Your task to perform on an android device: toggle javascript in the chrome app Image 0: 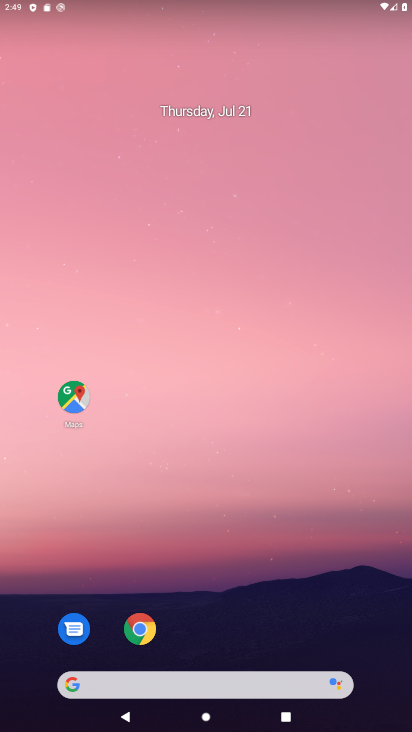
Step 0: drag from (251, 632) to (405, 283)
Your task to perform on an android device: toggle javascript in the chrome app Image 1: 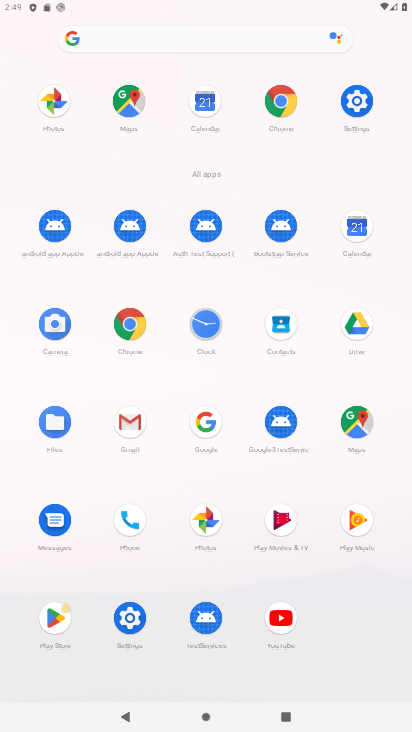
Step 1: click (134, 324)
Your task to perform on an android device: toggle javascript in the chrome app Image 2: 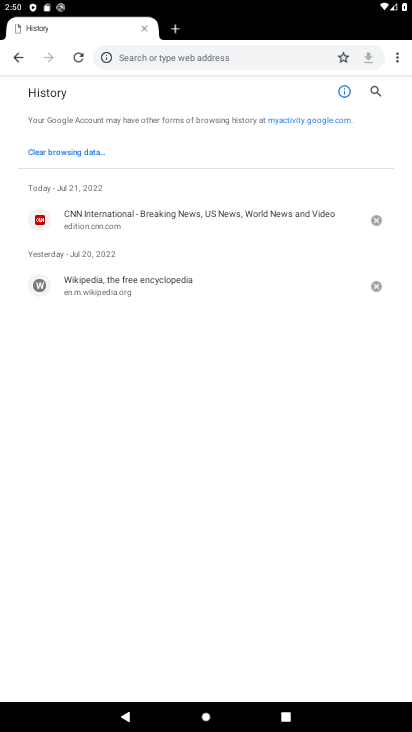
Step 2: click (395, 58)
Your task to perform on an android device: toggle javascript in the chrome app Image 3: 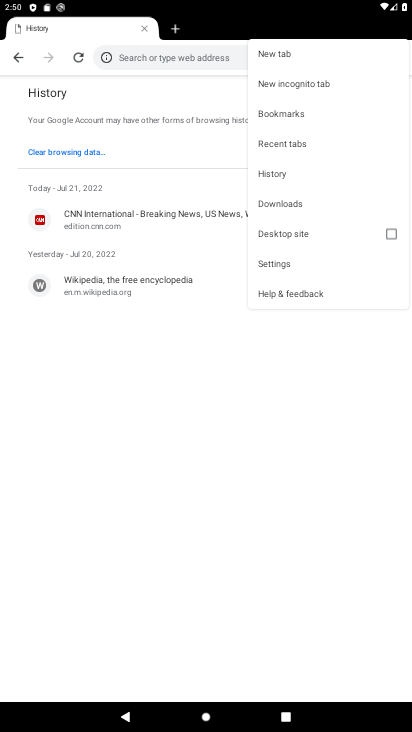
Step 3: click (277, 261)
Your task to perform on an android device: toggle javascript in the chrome app Image 4: 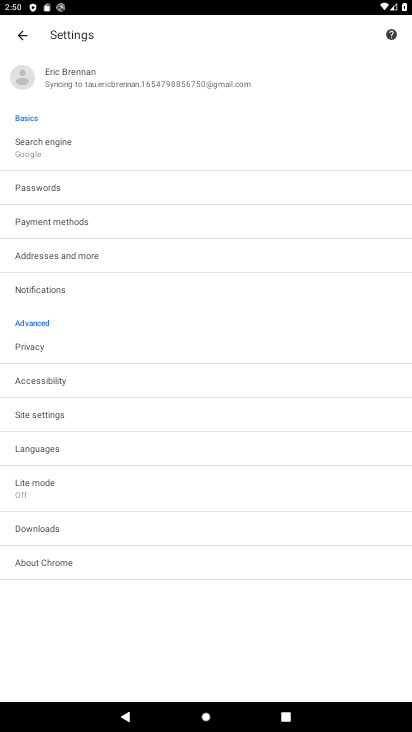
Step 4: click (61, 418)
Your task to perform on an android device: toggle javascript in the chrome app Image 5: 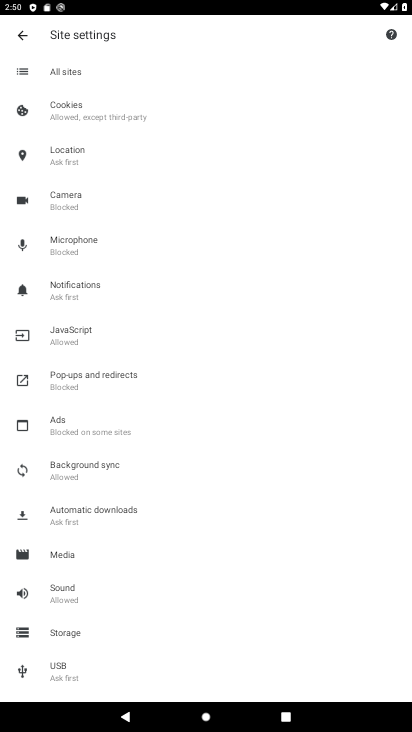
Step 5: click (85, 341)
Your task to perform on an android device: toggle javascript in the chrome app Image 6: 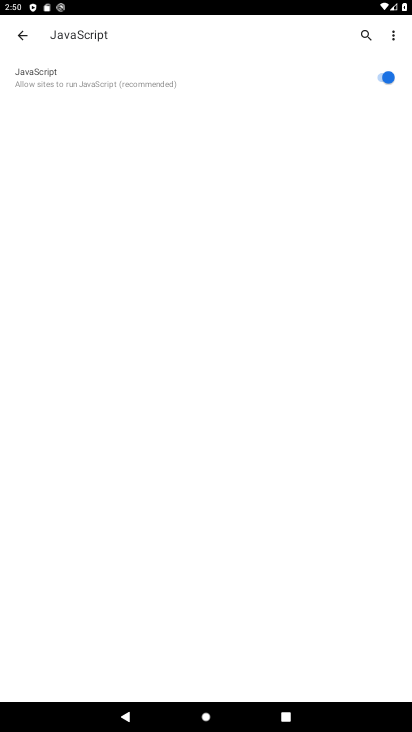
Step 6: task complete